Your task to perform on an android device: Find coffee shops on Maps Image 0: 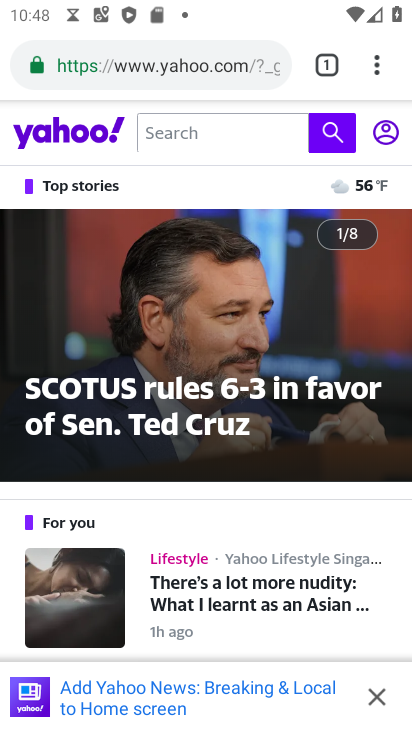
Step 0: press back button
Your task to perform on an android device: Find coffee shops on Maps Image 1: 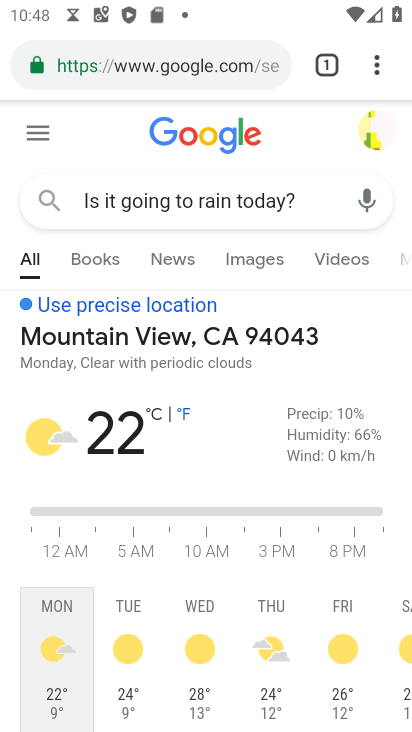
Step 1: press back button
Your task to perform on an android device: Find coffee shops on Maps Image 2: 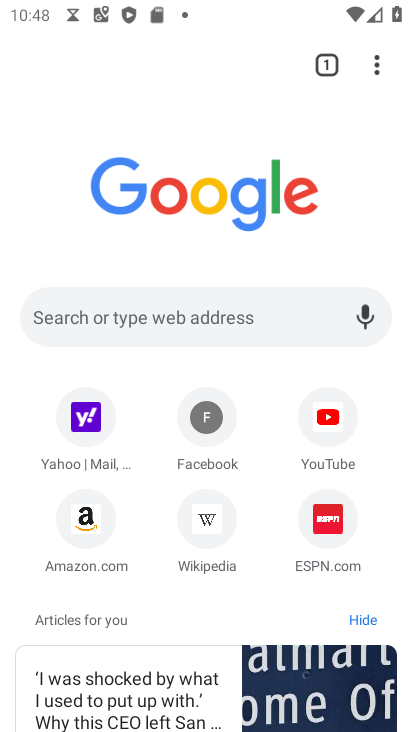
Step 2: press back button
Your task to perform on an android device: Find coffee shops on Maps Image 3: 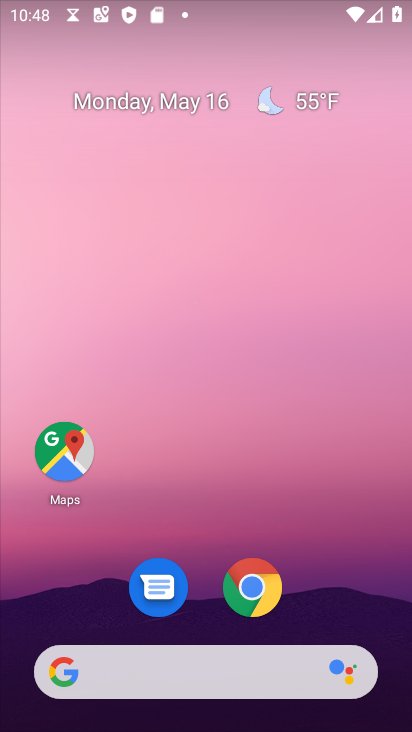
Step 3: drag from (314, 594) to (187, 29)
Your task to perform on an android device: Find coffee shops on Maps Image 4: 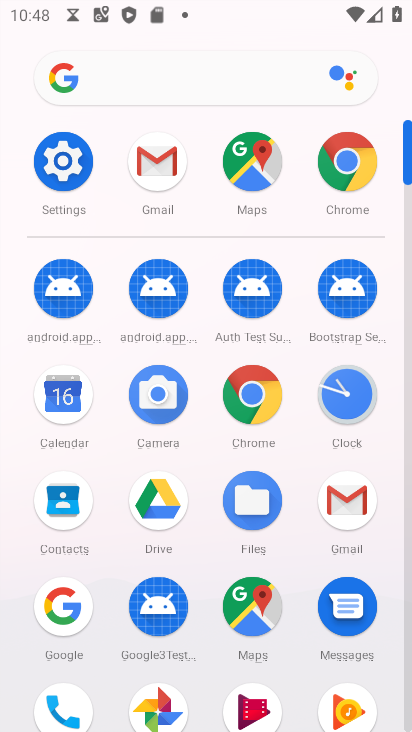
Step 4: drag from (4, 589) to (0, 209)
Your task to perform on an android device: Find coffee shops on Maps Image 5: 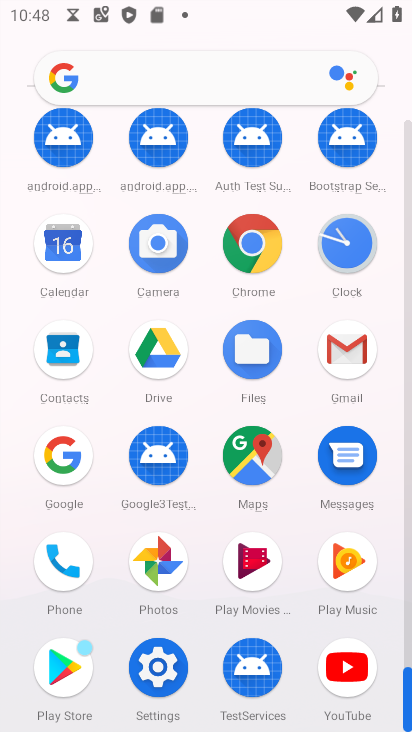
Step 5: drag from (15, 562) to (6, 165)
Your task to perform on an android device: Find coffee shops on Maps Image 6: 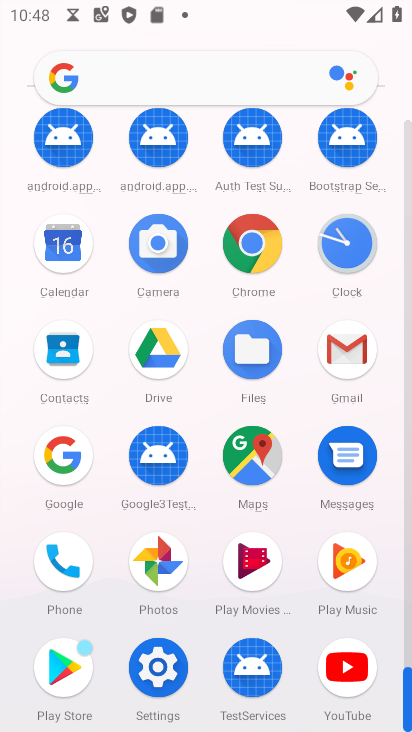
Step 6: drag from (23, 370) to (36, 231)
Your task to perform on an android device: Find coffee shops on Maps Image 7: 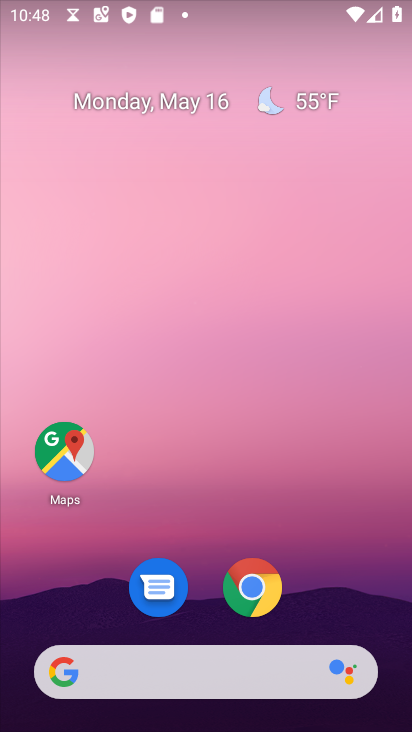
Step 7: drag from (297, 567) to (264, 40)
Your task to perform on an android device: Find coffee shops on Maps Image 8: 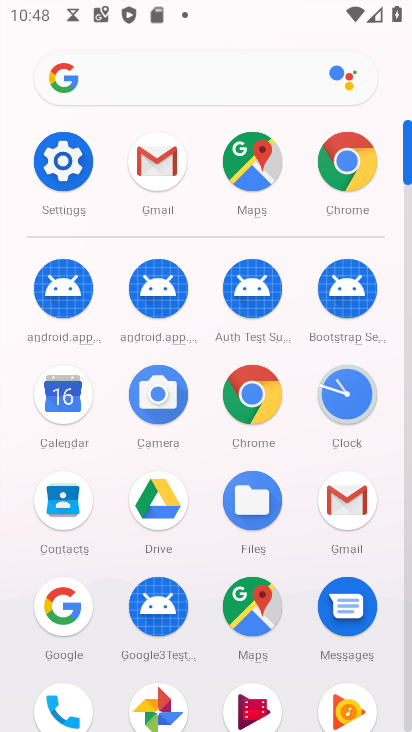
Step 8: drag from (10, 527) to (28, 268)
Your task to perform on an android device: Find coffee shops on Maps Image 9: 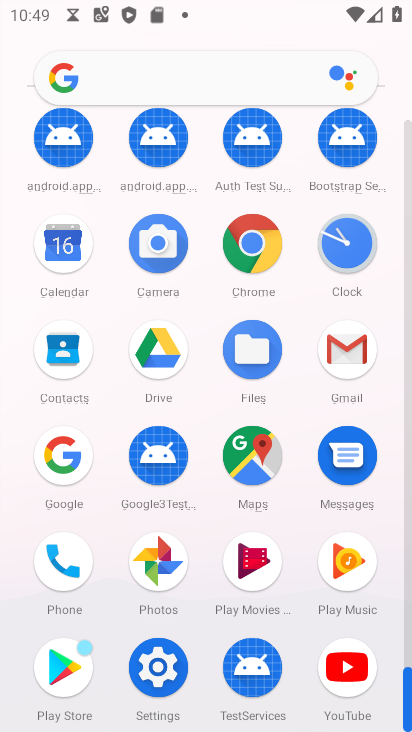
Step 9: drag from (9, 344) to (12, 268)
Your task to perform on an android device: Find coffee shops on Maps Image 10: 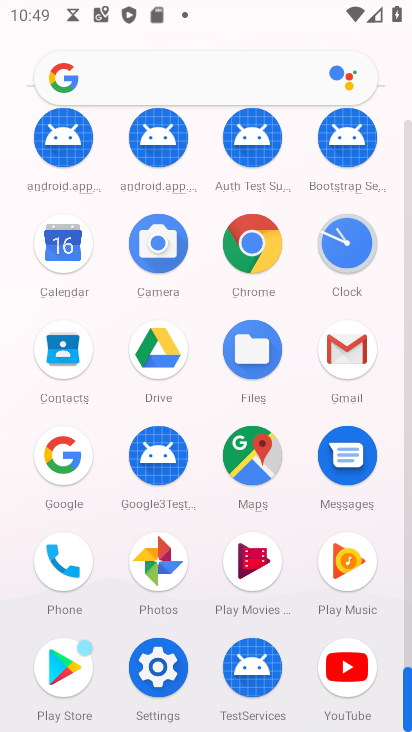
Step 10: click (254, 454)
Your task to perform on an android device: Find coffee shops on Maps Image 11: 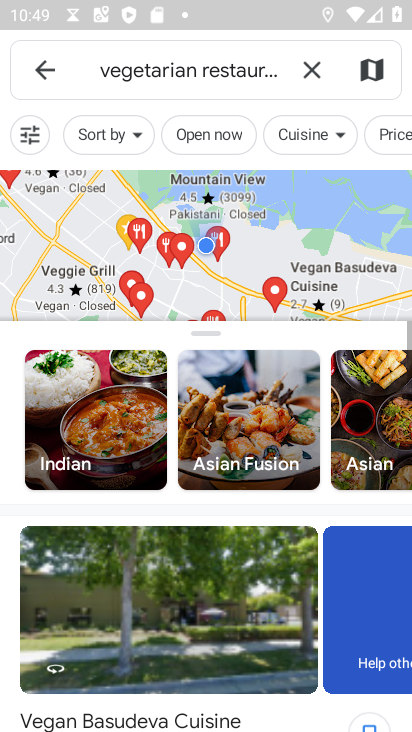
Step 11: click (315, 65)
Your task to perform on an android device: Find coffee shops on Maps Image 12: 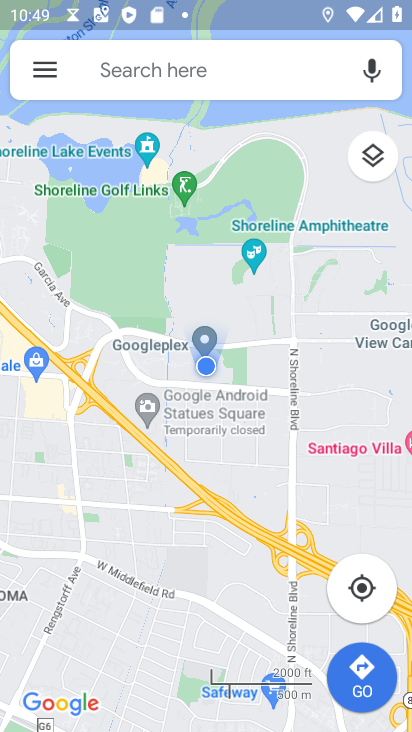
Step 12: click (221, 86)
Your task to perform on an android device: Find coffee shops on Maps Image 13: 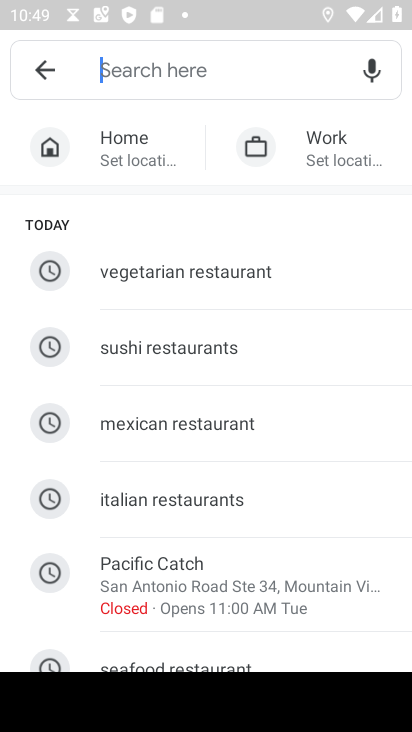
Step 13: drag from (273, 586) to (277, 235)
Your task to perform on an android device: Find coffee shops on Maps Image 14: 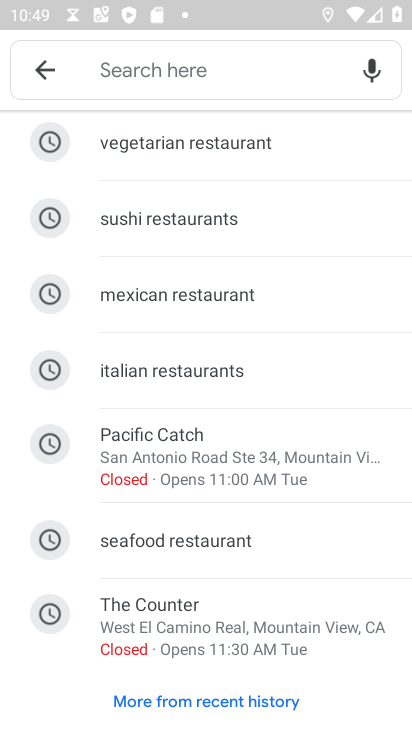
Step 14: drag from (258, 197) to (270, 535)
Your task to perform on an android device: Find coffee shops on Maps Image 15: 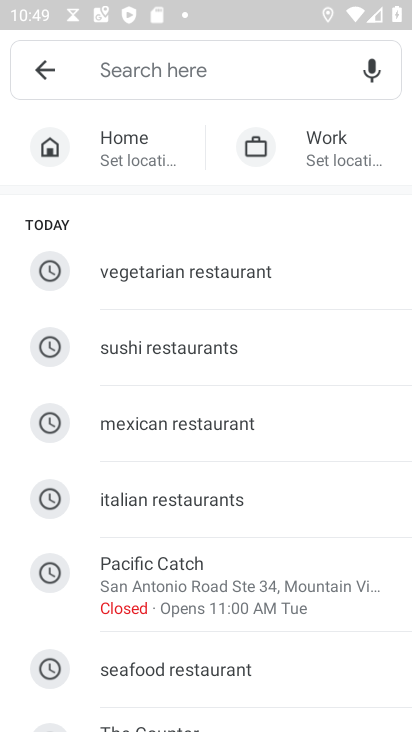
Step 15: click (243, 70)
Your task to perform on an android device: Find coffee shops on Maps Image 16: 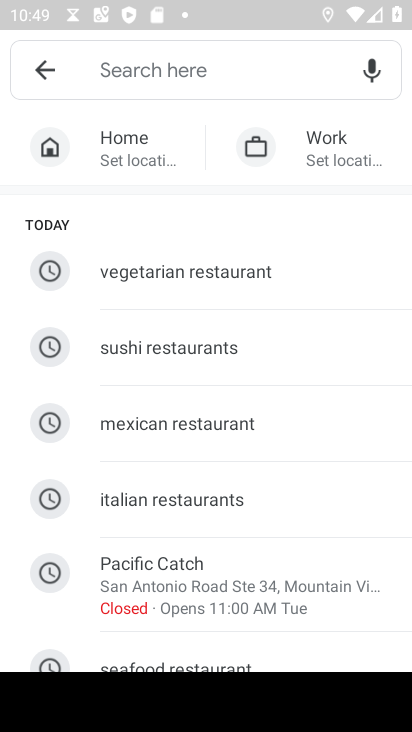
Step 16: type "coffee shops "
Your task to perform on an android device: Find coffee shops on Maps Image 17: 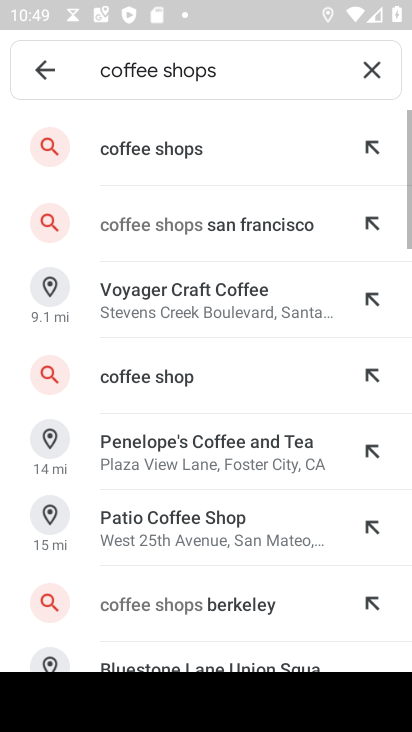
Step 17: click (176, 148)
Your task to perform on an android device: Find coffee shops on Maps Image 18: 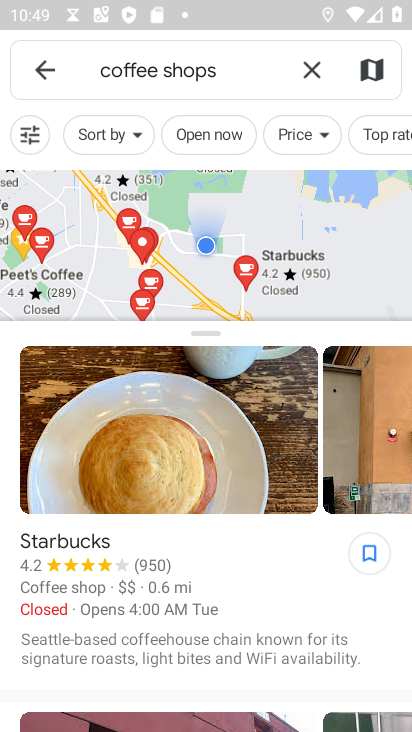
Step 18: task complete